Your task to perform on an android device: toggle pop-ups in chrome Image 0: 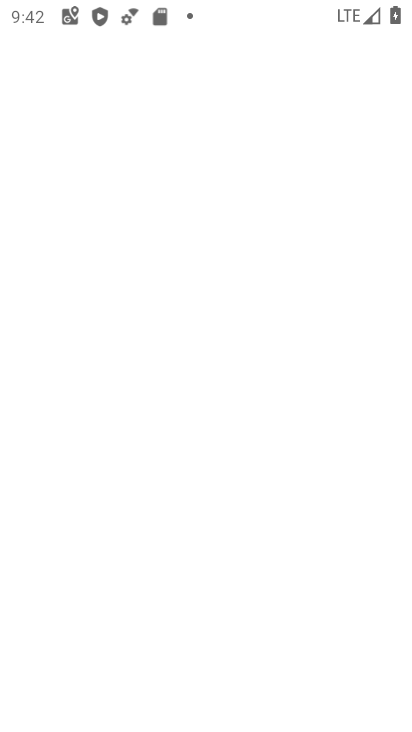
Step 0: press home button
Your task to perform on an android device: toggle pop-ups in chrome Image 1: 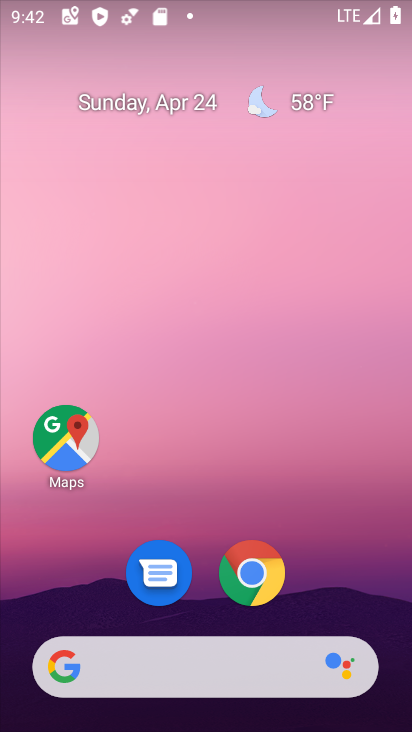
Step 1: drag from (360, 122) to (360, 52)
Your task to perform on an android device: toggle pop-ups in chrome Image 2: 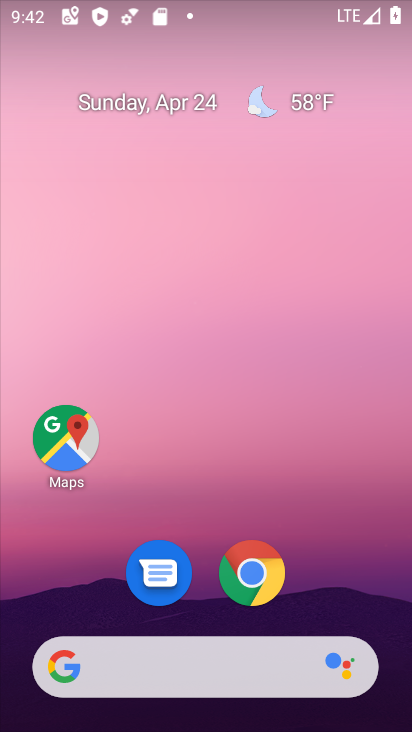
Step 2: drag from (342, 543) to (312, 92)
Your task to perform on an android device: toggle pop-ups in chrome Image 3: 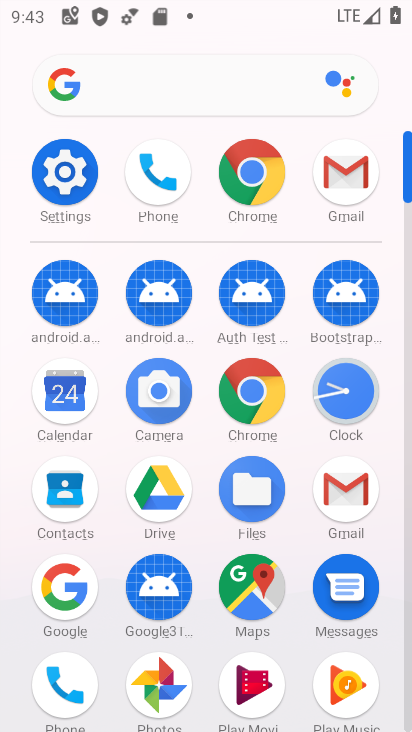
Step 3: click (252, 405)
Your task to perform on an android device: toggle pop-ups in chrome Image 4: 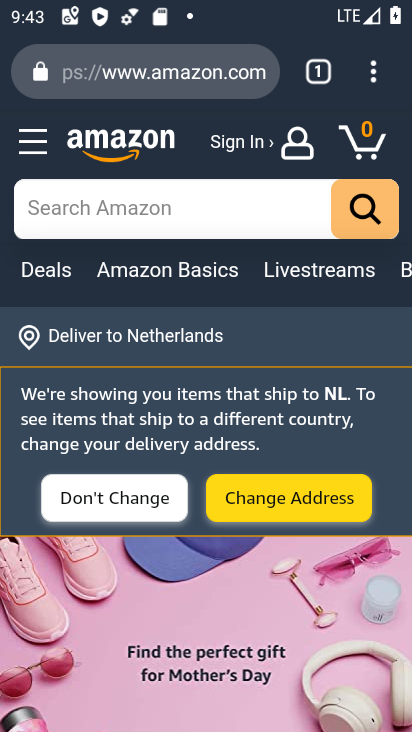
Step 4: drag from (377, 66) to (208, 555)
Your task to perform on an android device: toggle pop-ups in chrome Image 5: 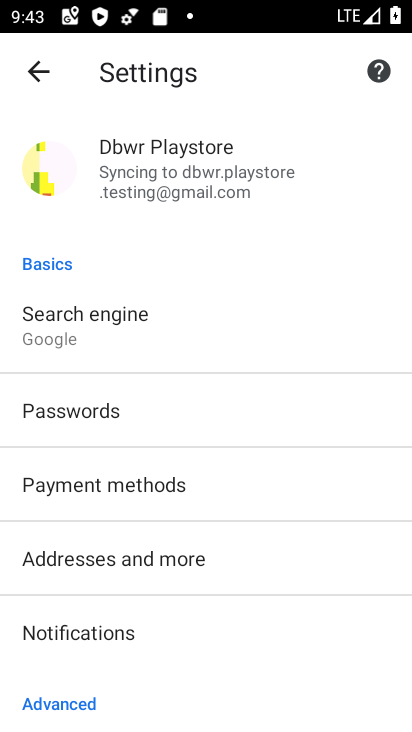
Step 5: drag from (255, 611) to (297, 159)
Your task to perform on an android device: toggle pop-ups in chrome Image 6: 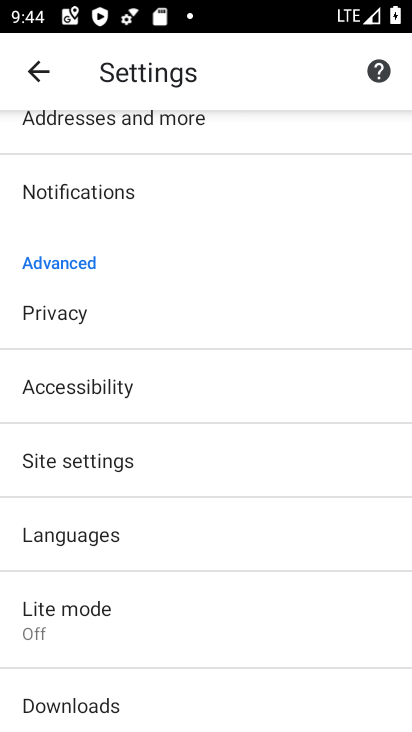
Step 6: click (102, 458)
Your task to perform on an android device: toggle pop-ups in chrome Image 7: 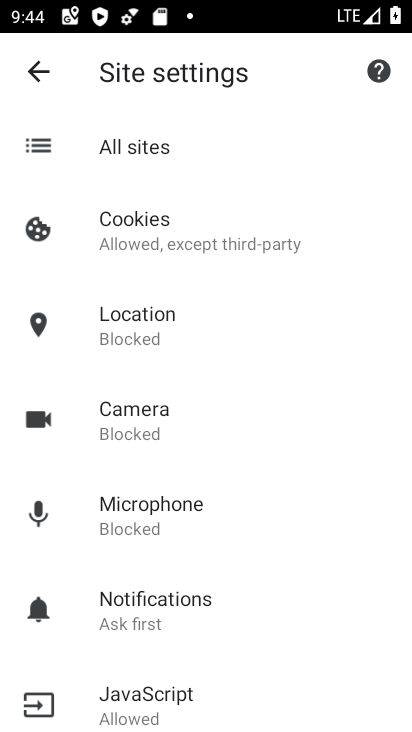
Step 7: drag from (241, 494) to (267, 233)
Your task to perform on an android device: toggle pop-ups in chrome Image 8: 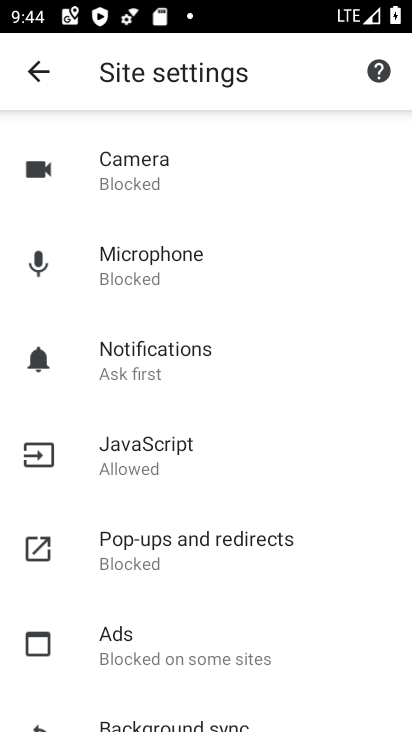
Step 8: click (209, 559)
Your task to perform on an android device: toggle pop-ups in chrome Image 9: 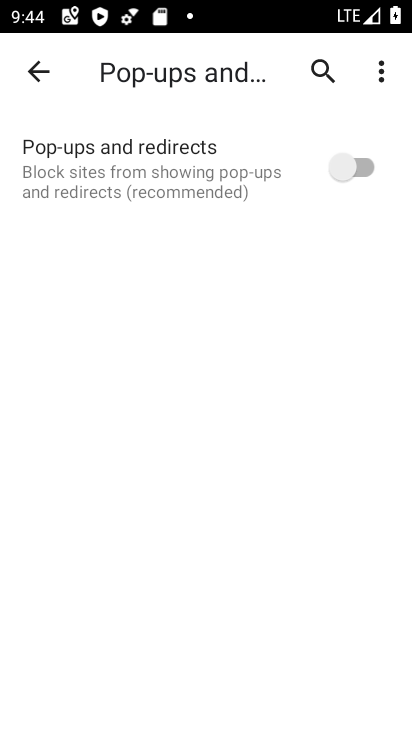
Step 9: click (336, 164)
Your task to perform on an android device: toggle pop-ups in chrome Image 10: 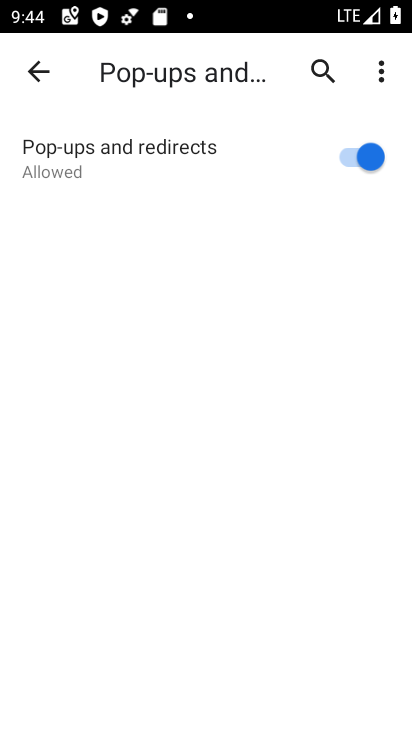
Step 10: task complete